Your task to perform on an android device: Open display settings Image 0: 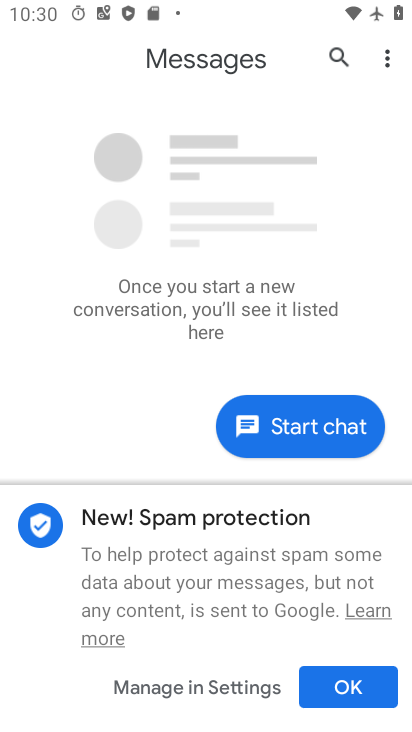
Step 0: press back button
Your task to perform on an android device: Open display settings Image 1: 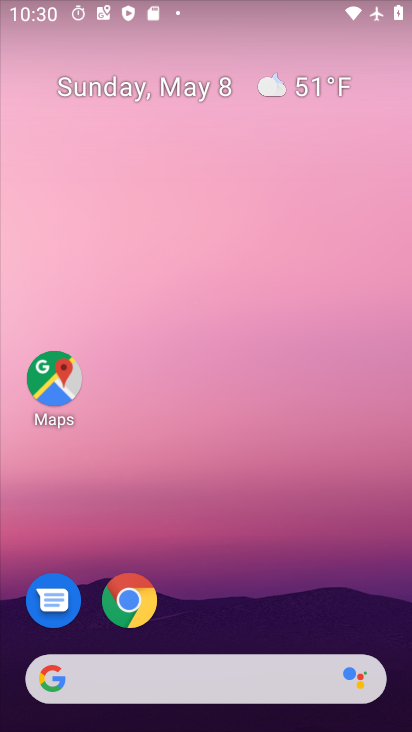
Step 1: drag from (299, 622) to (257, 41)
Your task to perform on an android device: Open display settings Image 2: 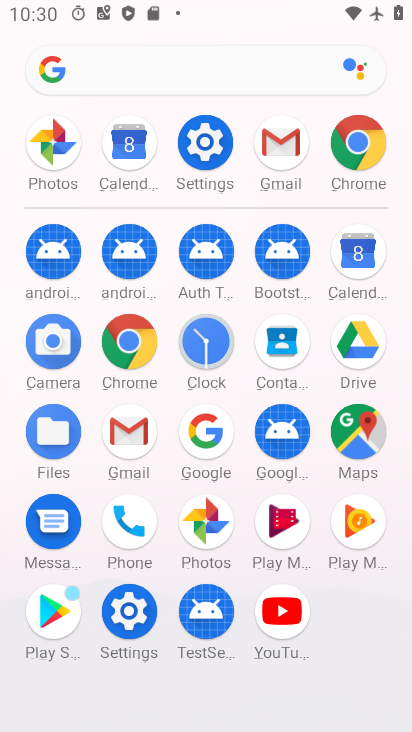
Step 2: drag from (4, 540) to (19, 138)
Your task to perform on an android device: Open display settings Image 3: 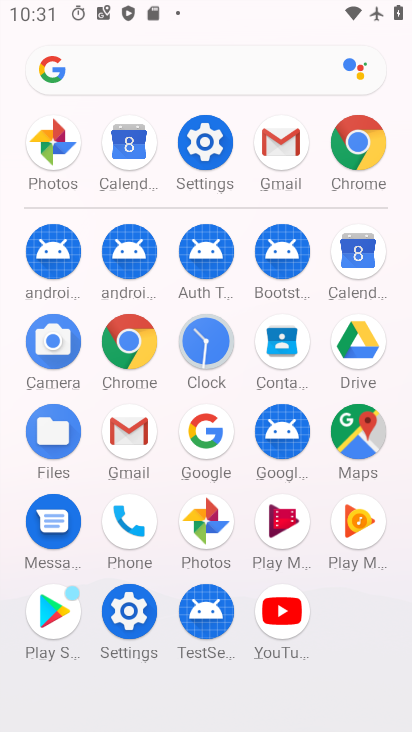
Step 3: click (130, 610)
Your task to perform on an android device: Open display settings Image 4: 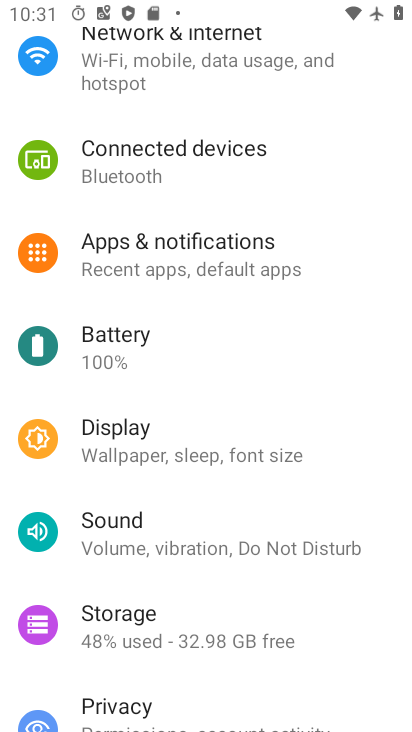
Step 4: drag from (248, 142) to (289, 214)
Your task to perform on an android device: Open display settings Image 5: 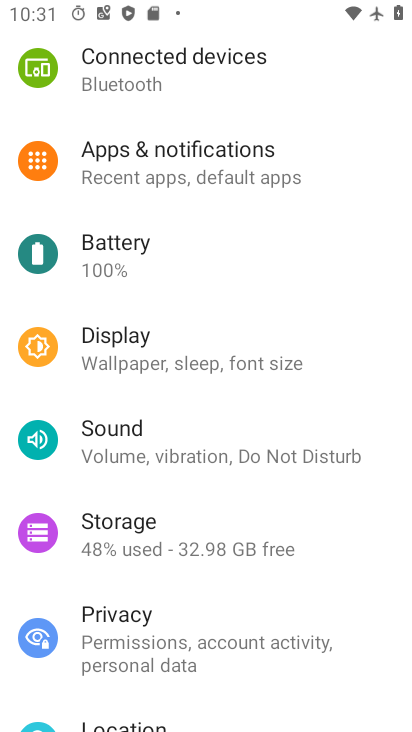
Step 5: drag from (292, 606) to (303, 385)
Your task to perform on an android device: Open display settings Image 6: 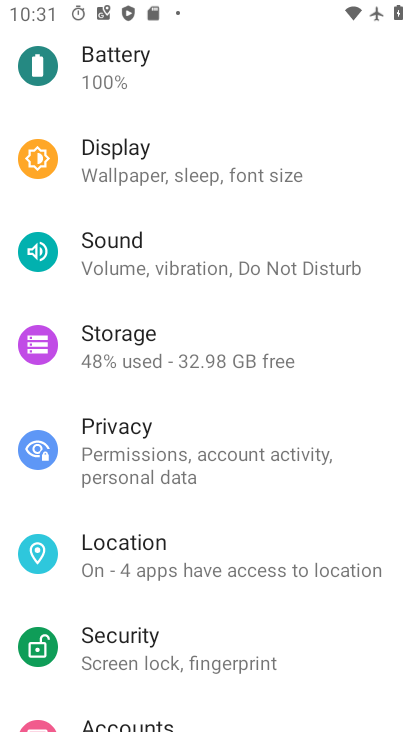
Step 6: click (152, 163)
Your task to perform on an android device: Open display settings Image 7: 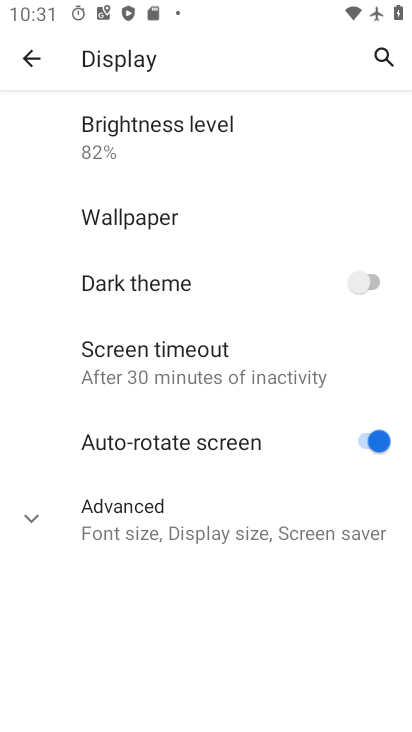
Step 7: click (54, 522)
Your task to perform on an android device: Open display settings Image 8: 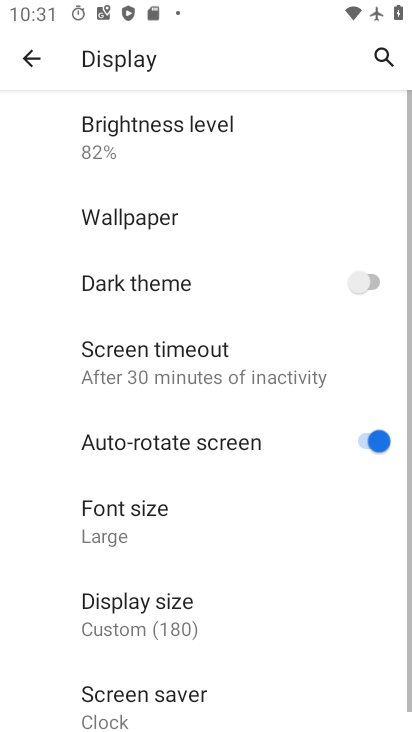
Step 8: task complete